Your task to perform on an android device: move a message to another label in the gmail app Image 0: 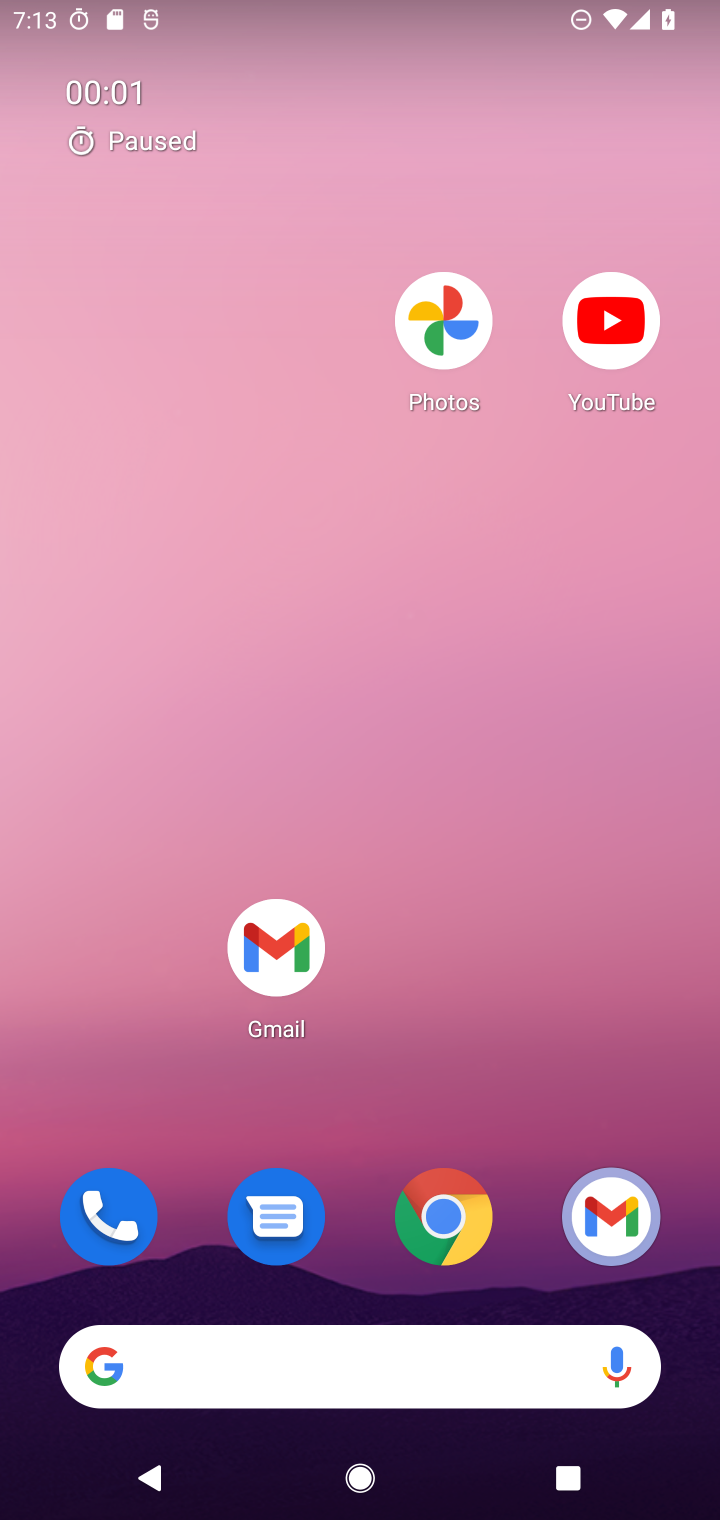
Step 0: drag from (517, 1149) to (540, 293)
Your task to perform on an android device: move a message to another label in the gmail app Image 1: 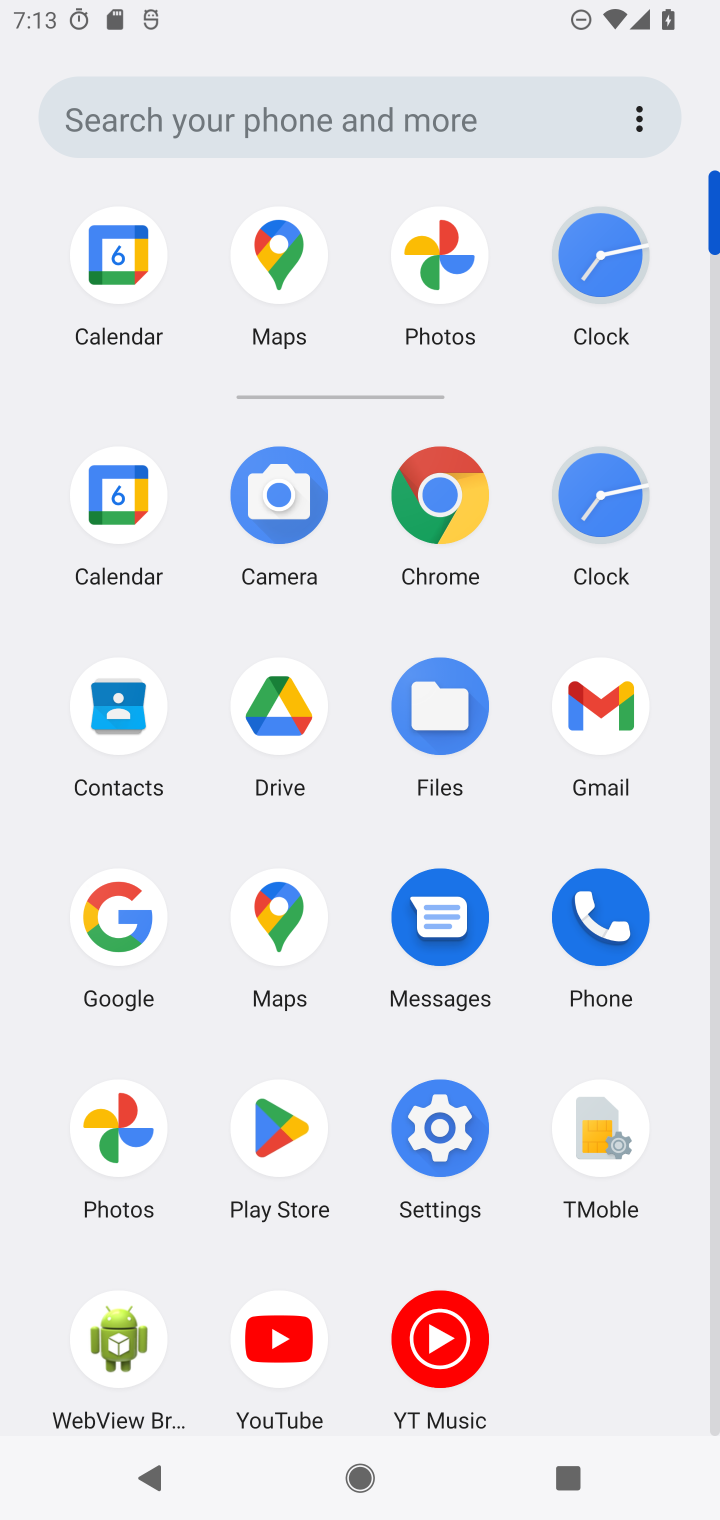
Step 1: click (603, 698)
Your task to perform on an android device: move a message to another label in the gmail app Image 2: 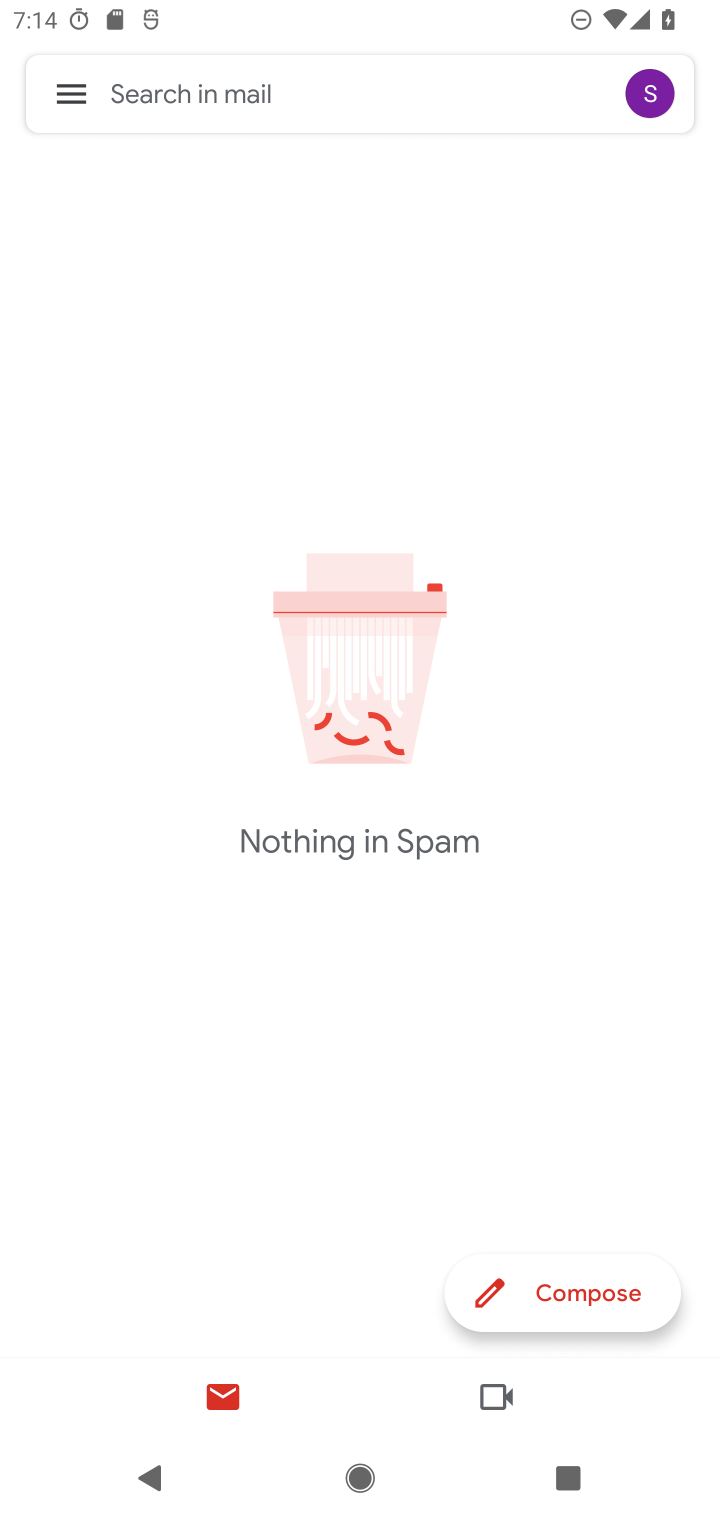
Step 2: click (58, 87)
Your task to perform on an android device: move a message to another label in the gmail app Image 3: 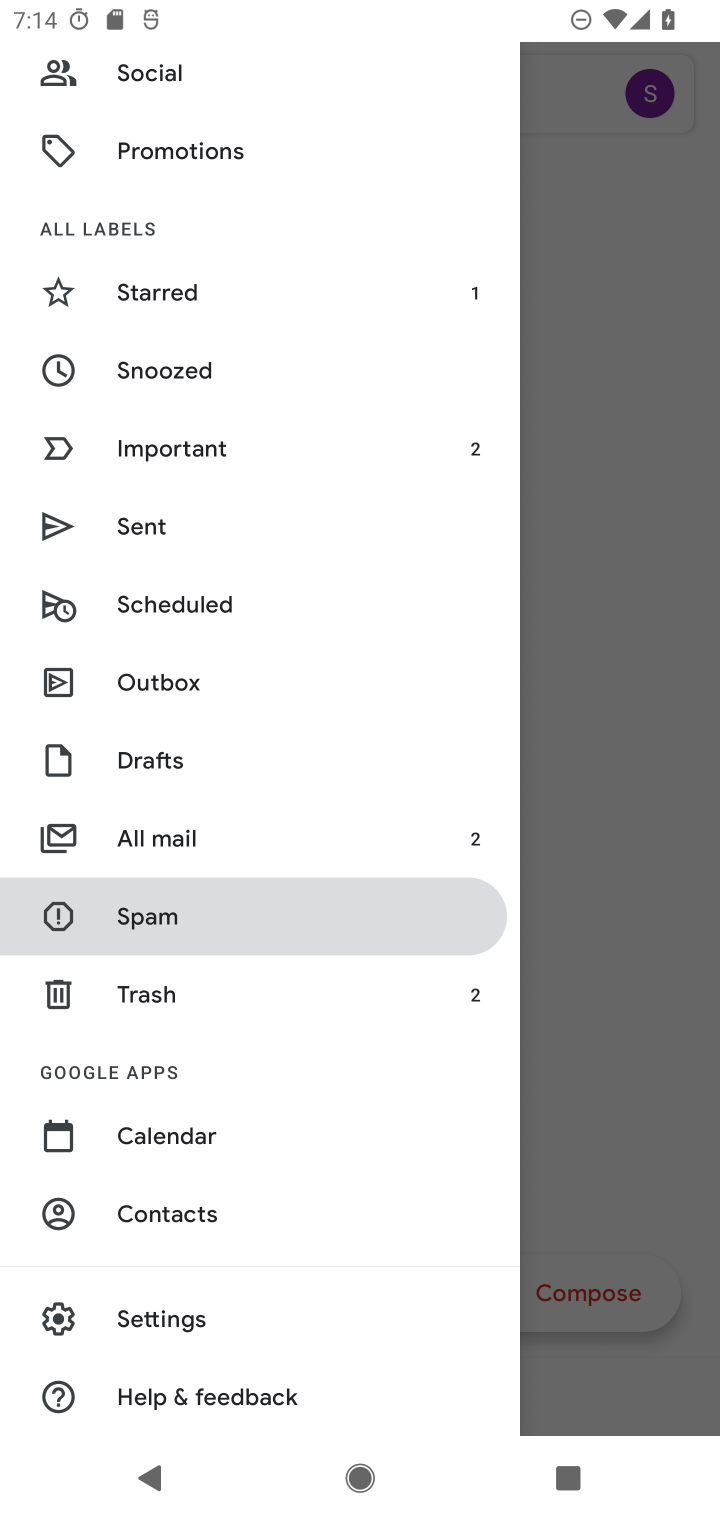
Step 3: click (183, 835)
Your task to perform on an android device: move a message to another label in the gmail app Image 4: 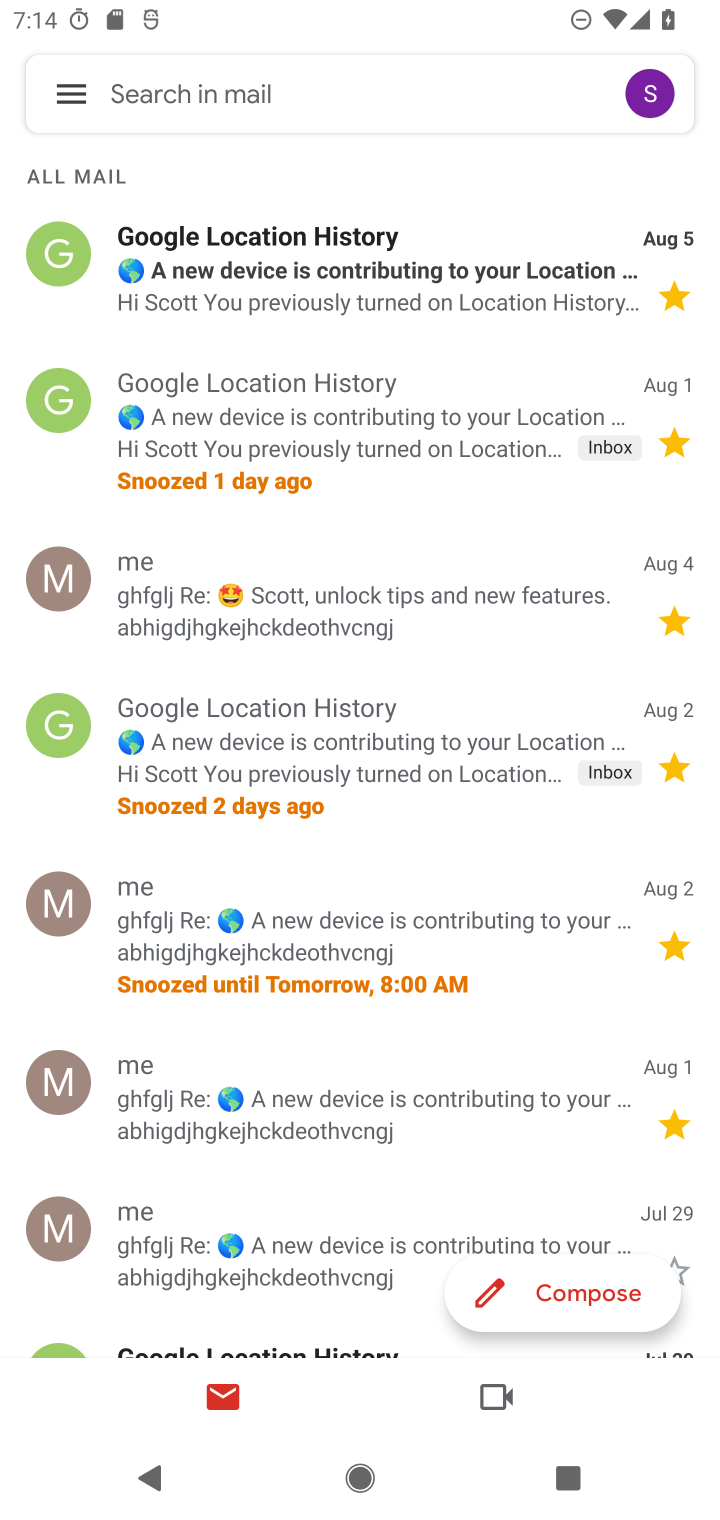
Step 4: click (339, 465)
Your task to perform on an android device: move a message to another label in the gmail app Image 5: 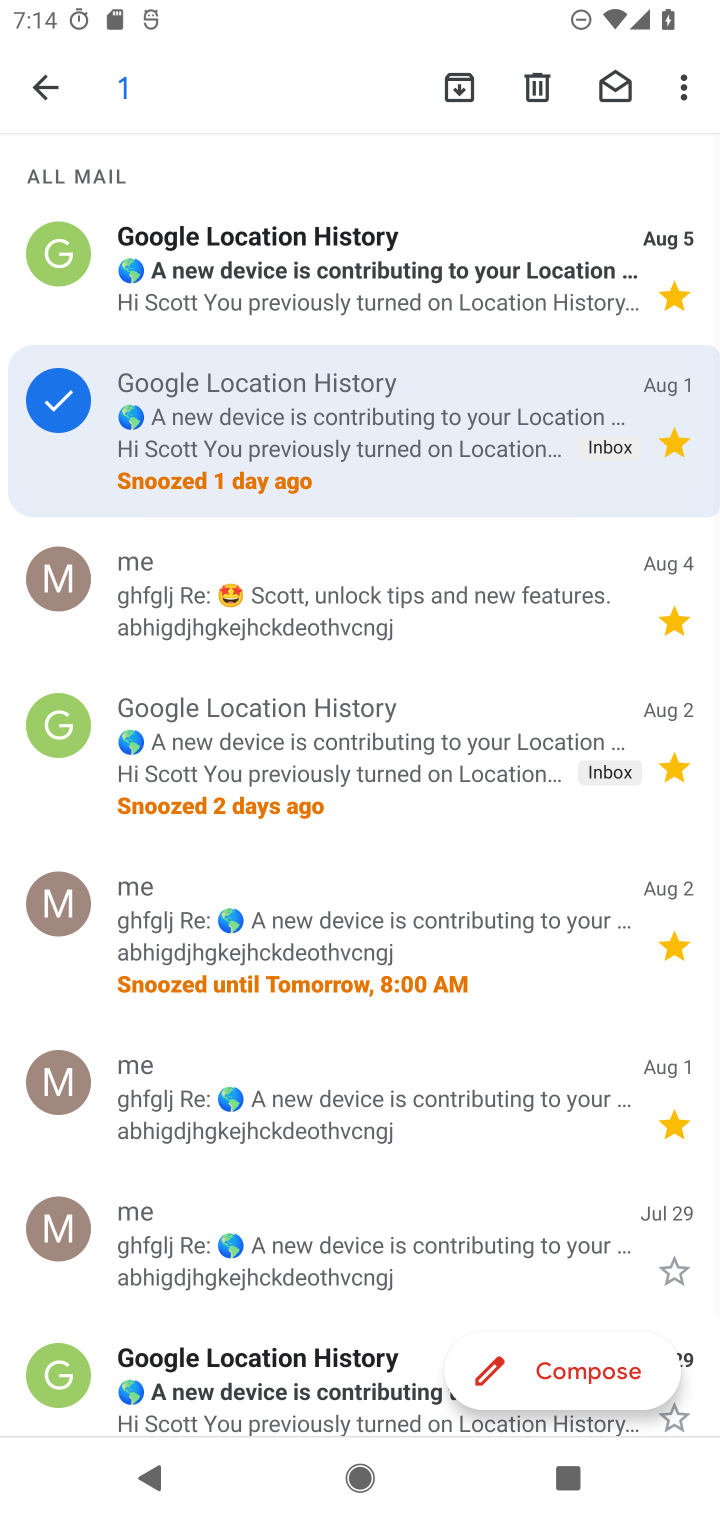
Step 5: click (670, 89)
Your task to perform on an android device: move a message to another label in the gmail app Image 6: 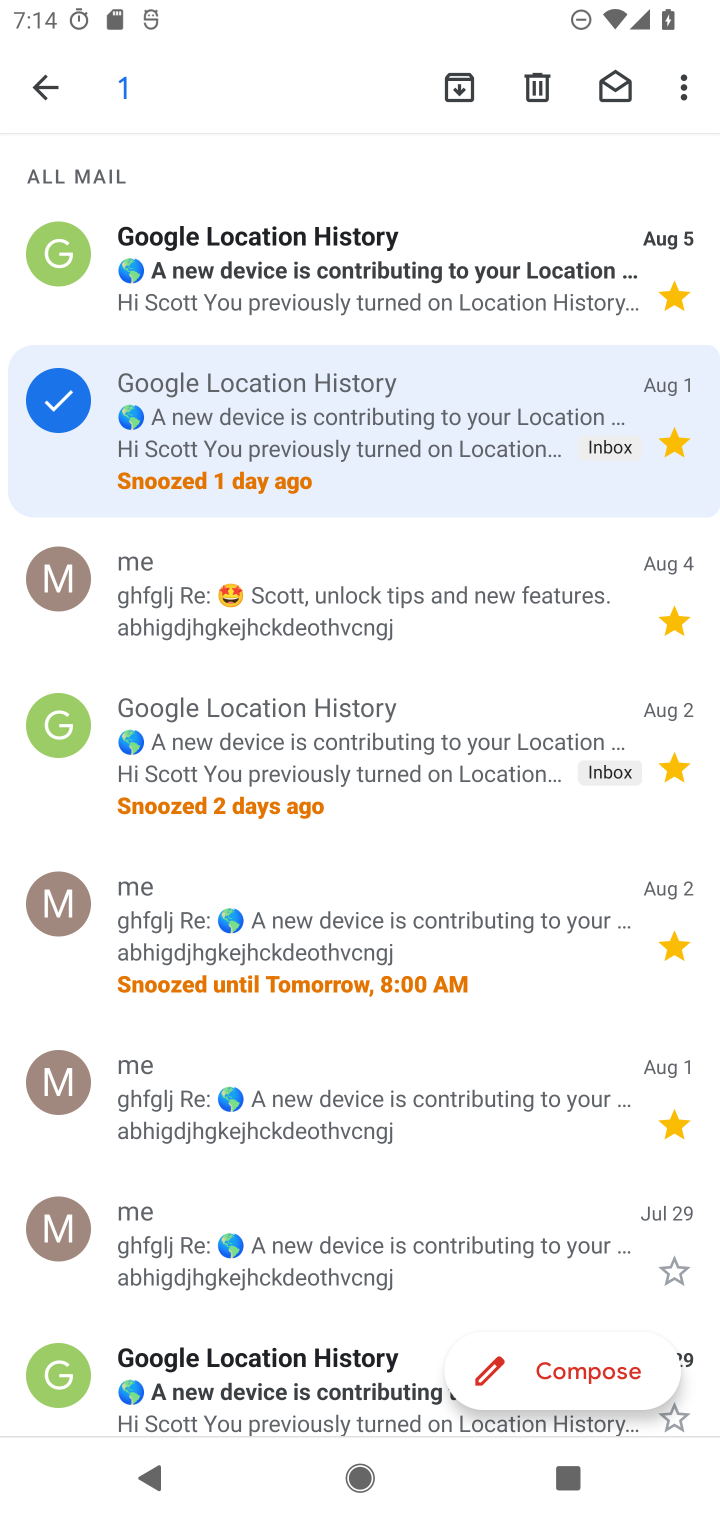
Step 6: click (679, 76)
Your task to perform on an android device: move a message to another label in the gmail app Image 7: 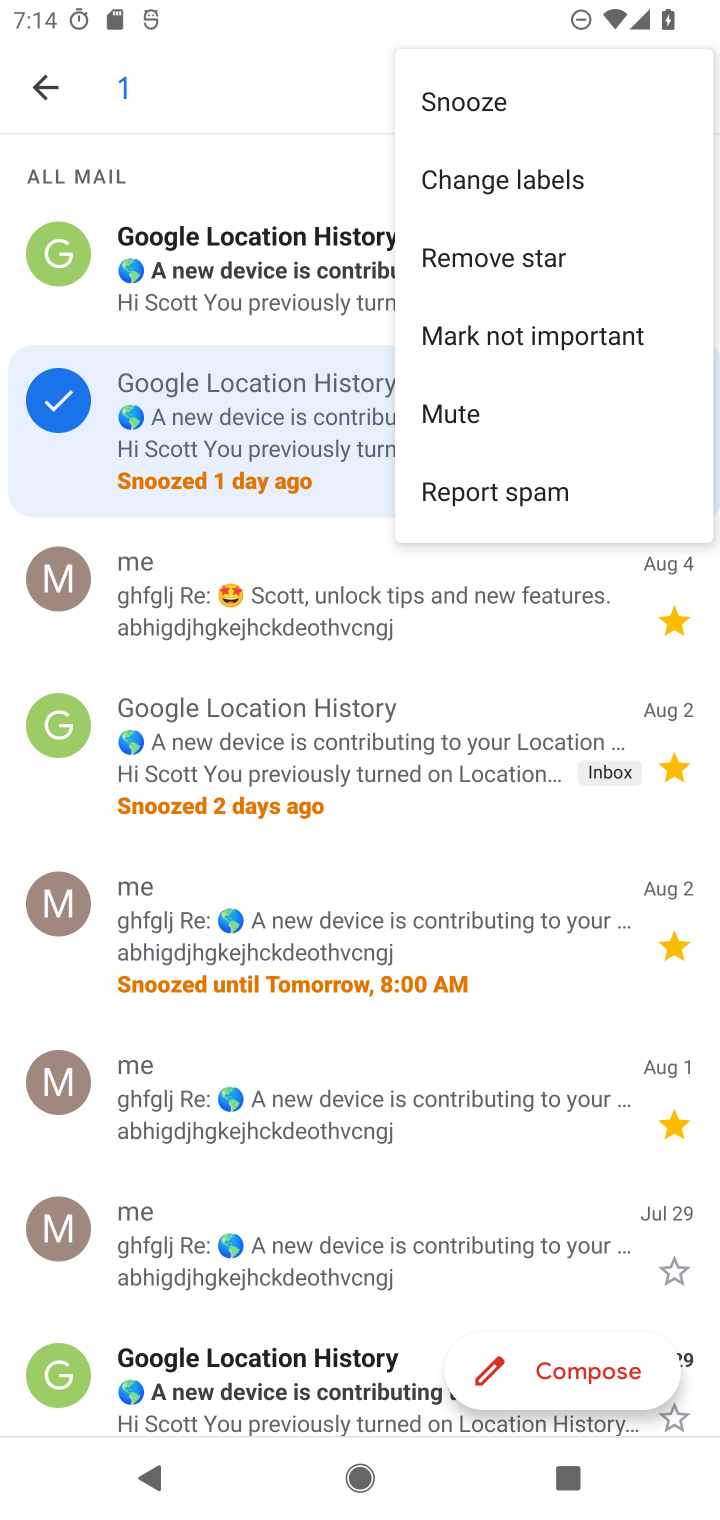
Step 7: click (541, 191)
Your task to perform on an android device: move a message to another label in the gmail app Image 8: 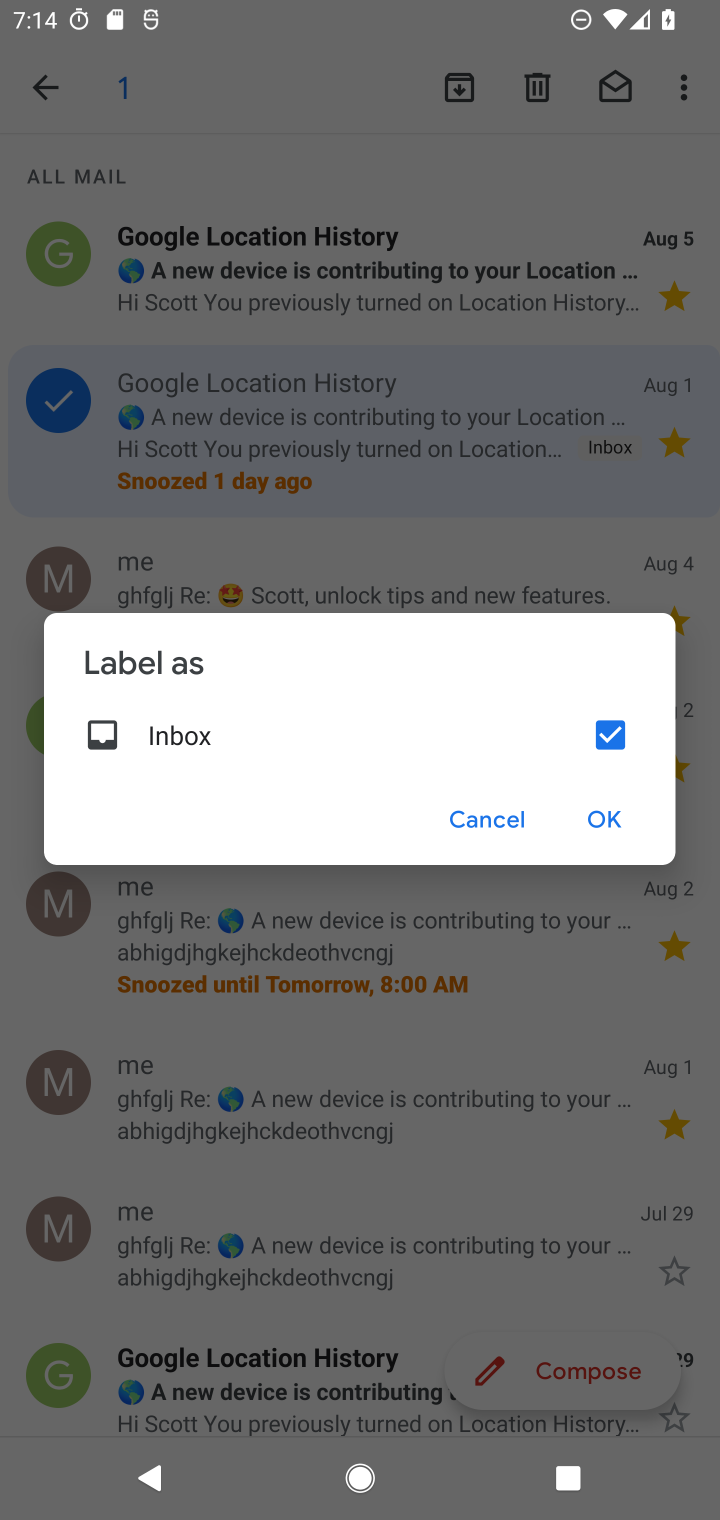
Step 8: click (633, 729)
Your task to perform on an android device: move a message to another label in the gmail app Image 9: 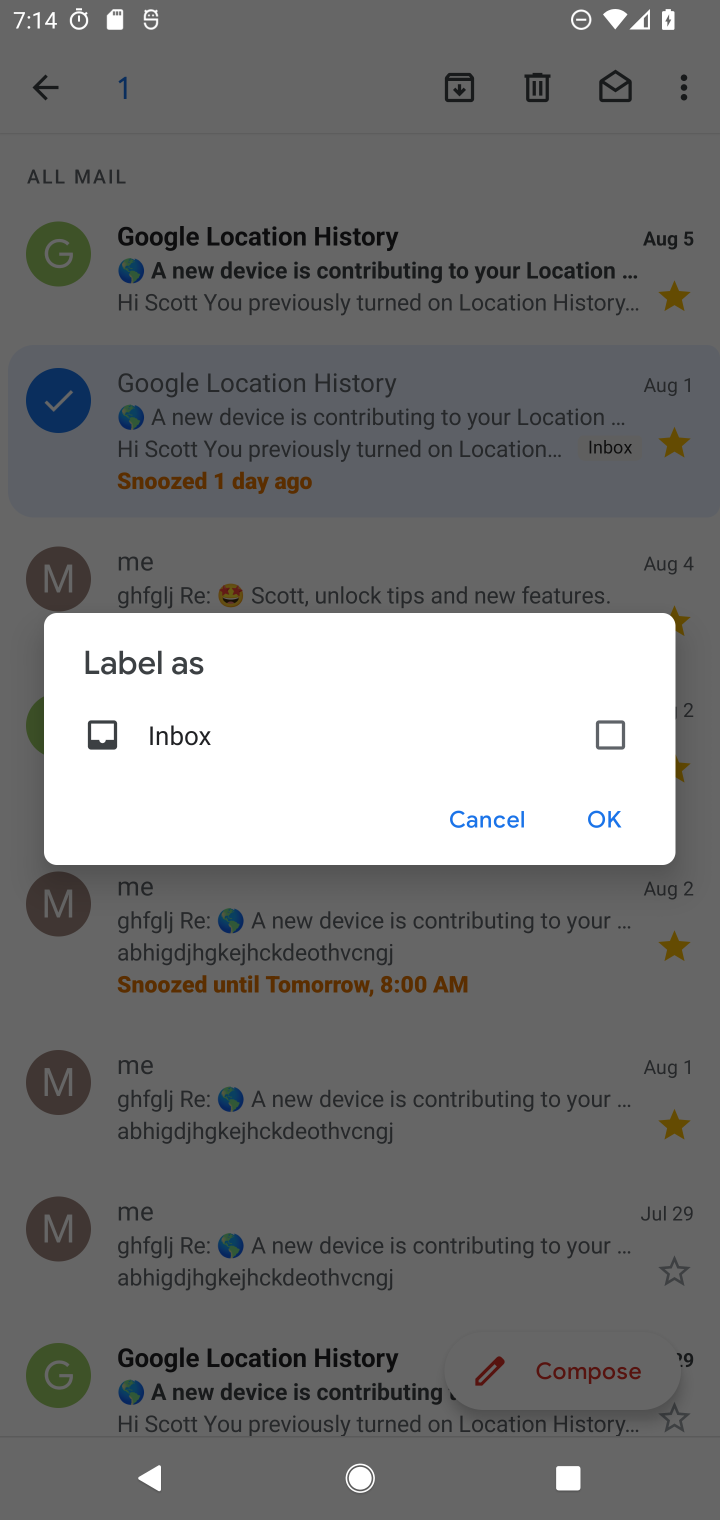
Step 9: click (606, 826)
Your task to perform on an android device: move a message to another label in the gmail app Image 10: 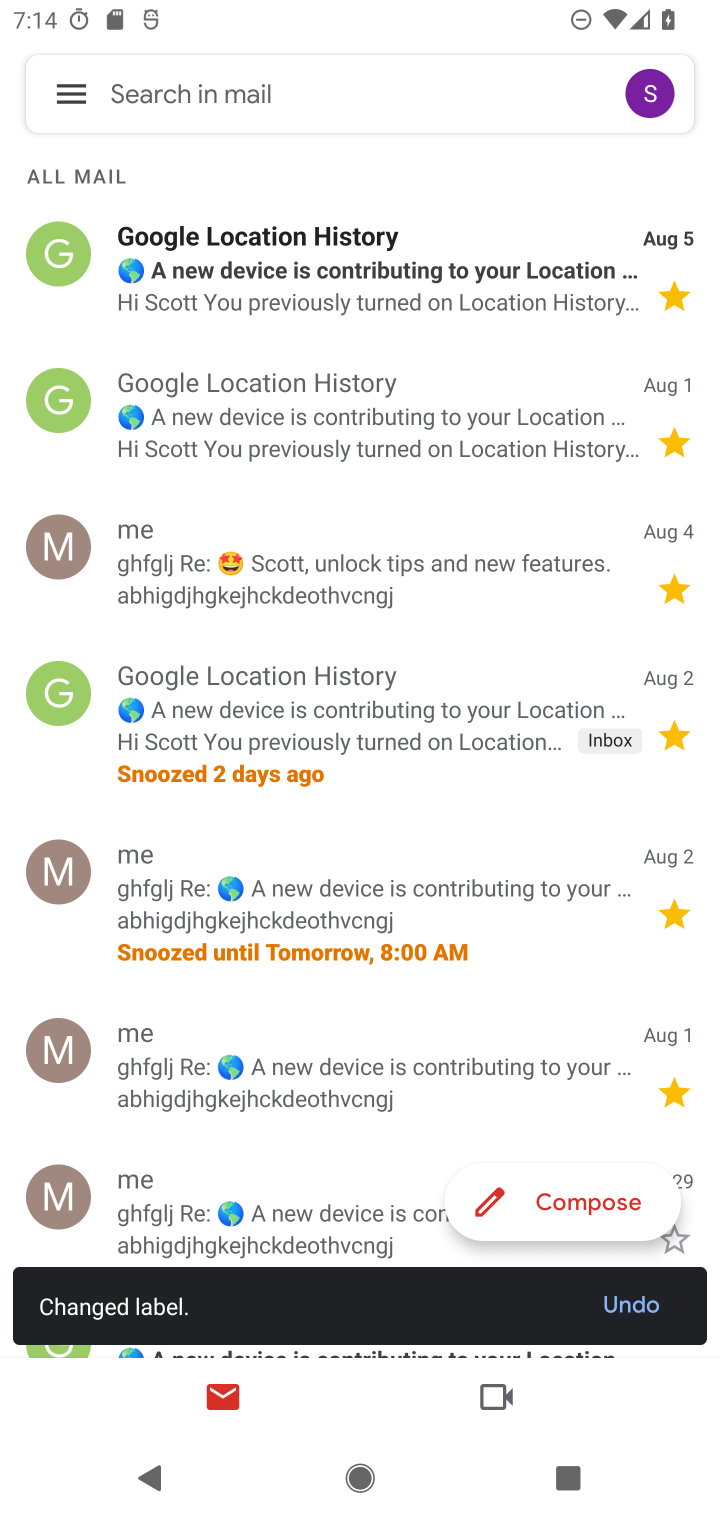
Step 10: task complete